Your task to perform on an android device: Go to CNN.com Image 0: 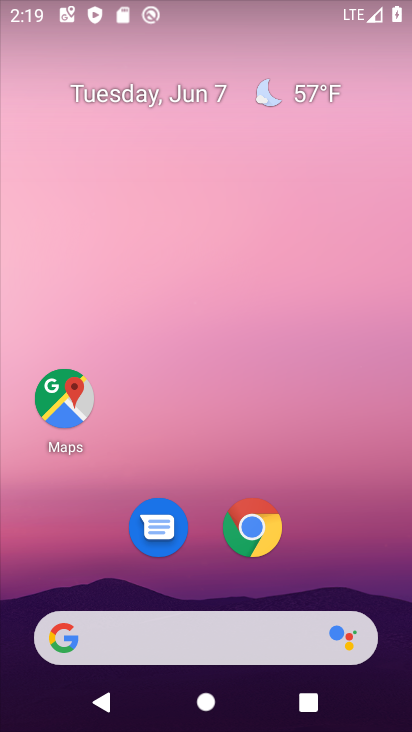
Step 0: click (262, 527)
Your task to perform on an android device: Go to CNN.com Image 1: 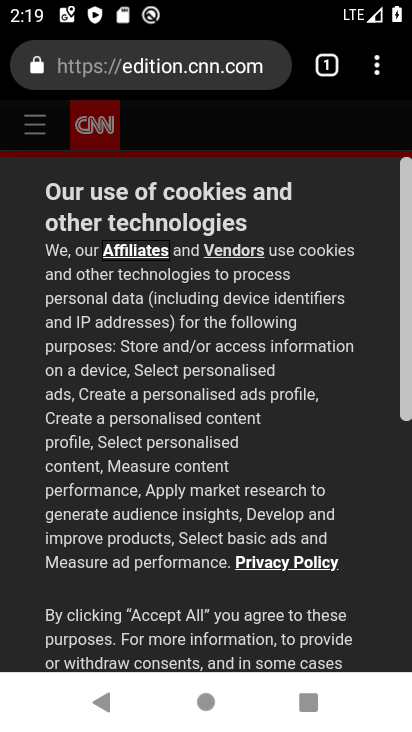
Step 1: task complete